Your task to perform on an android device: Add "panasonic triple a" to the cart on target, then select checkout. Image 0: 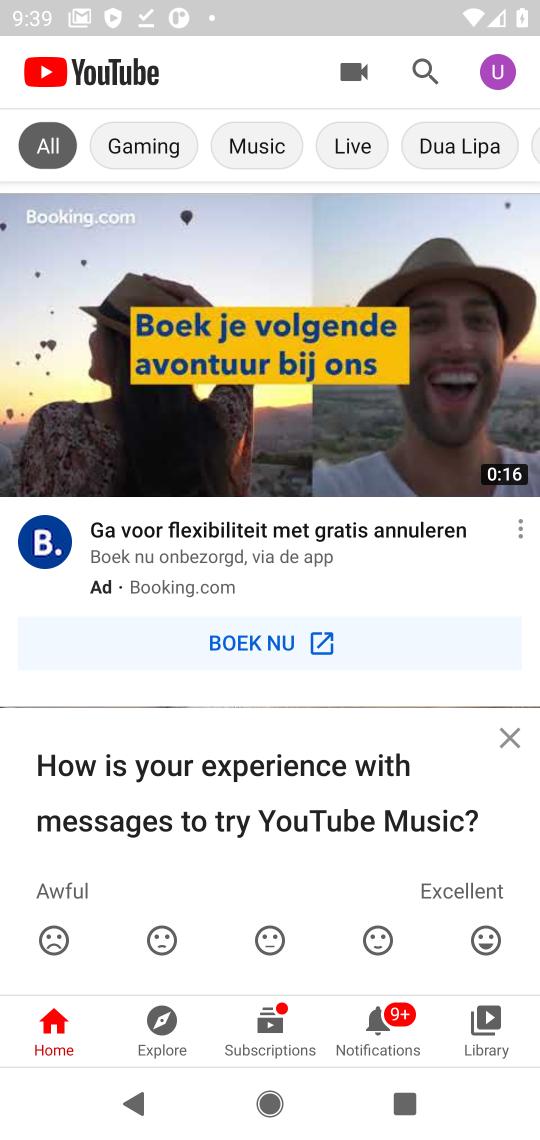
Step 0: press home button
Your task to perform on an android device: Add "panasonic triple a" to the cart on target, then select checkout. Image 1: 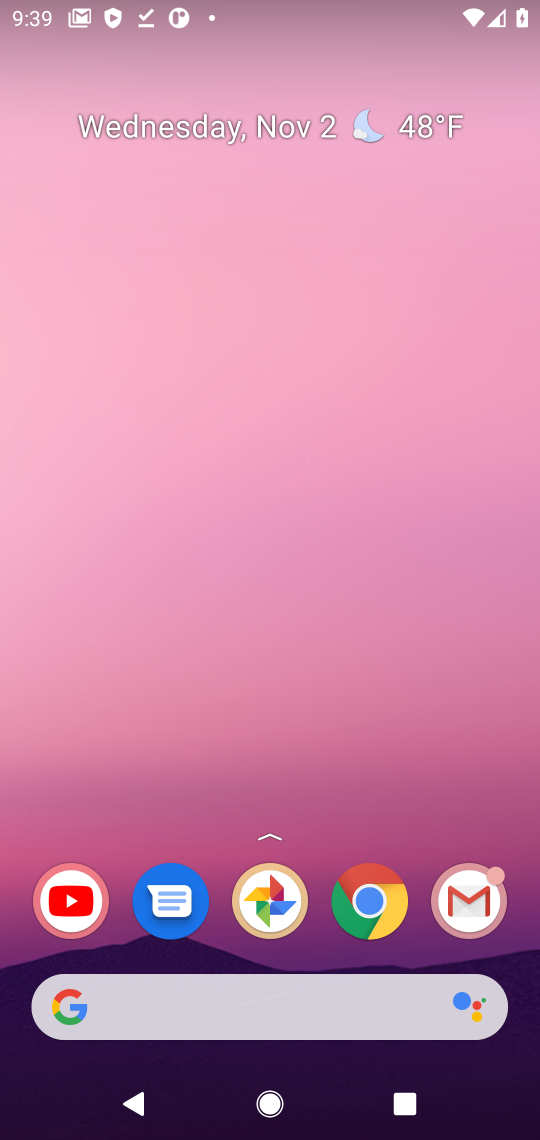
Step 1: click (370, 910)
Your task to perform on an android device: Add "panasonic triple a" to the cart on target, then select checkout. Image 2: 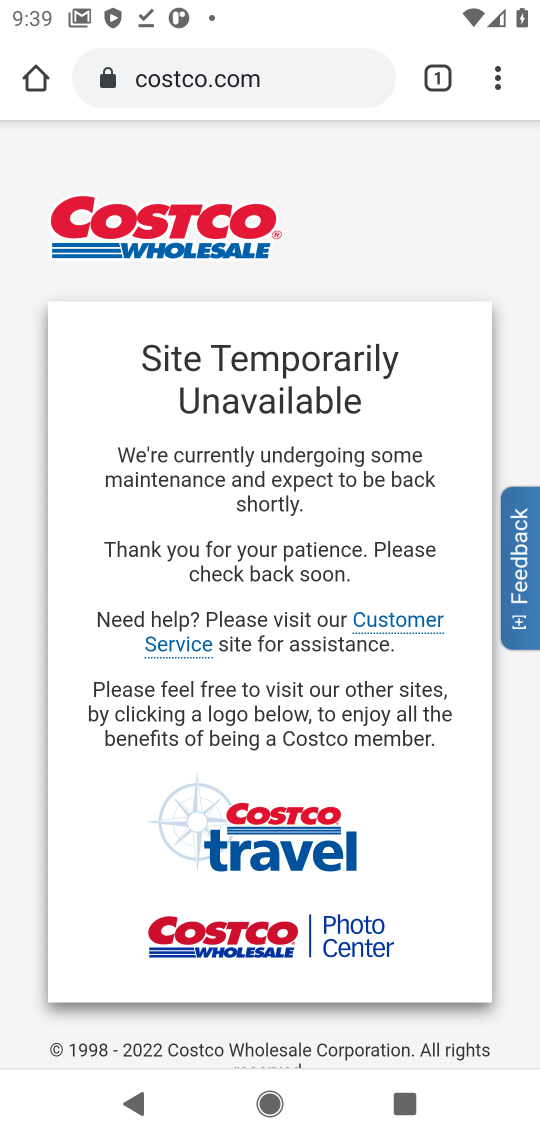
Step 2: click (291, 84)
Your task to perform on an android device: Add "panasonic triple a" to the cart on target, then select checkout. Image 3: 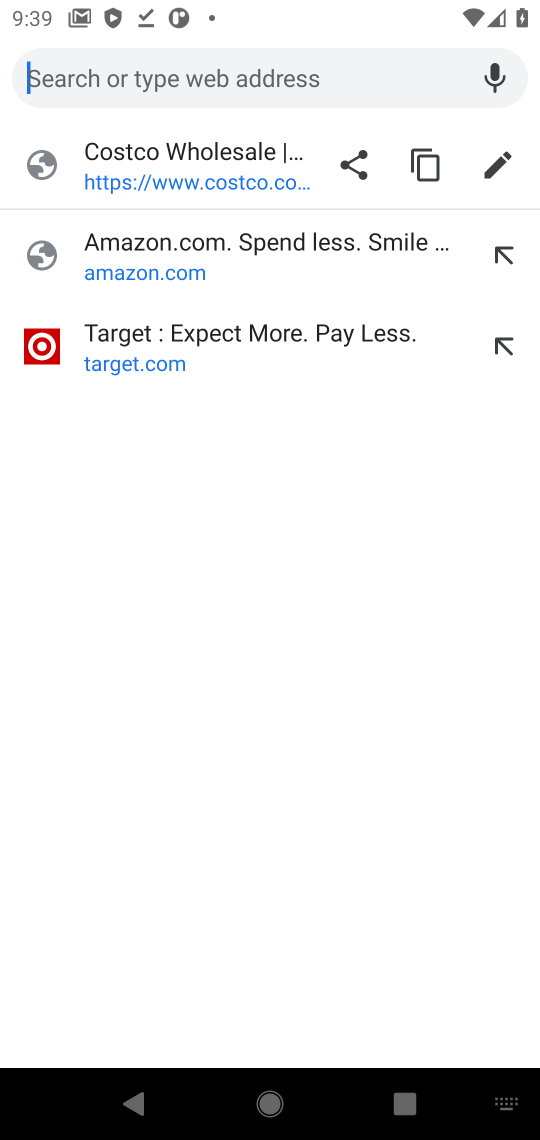
Step 3: type "target"
Your task to perform on an android device: Add "panasonic triple a" to the cart on target, then select checkout. Image 4: 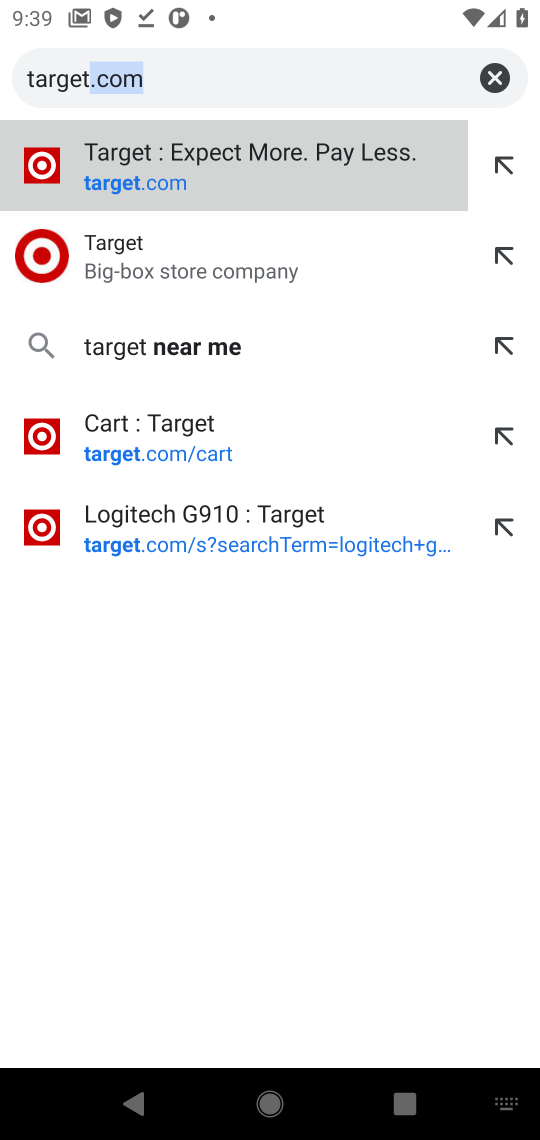
Step 4: click (293, 168)
Your task to perform on an android device: Add "panasonic triple a" to the cart on target, then select checkout. Image 5: 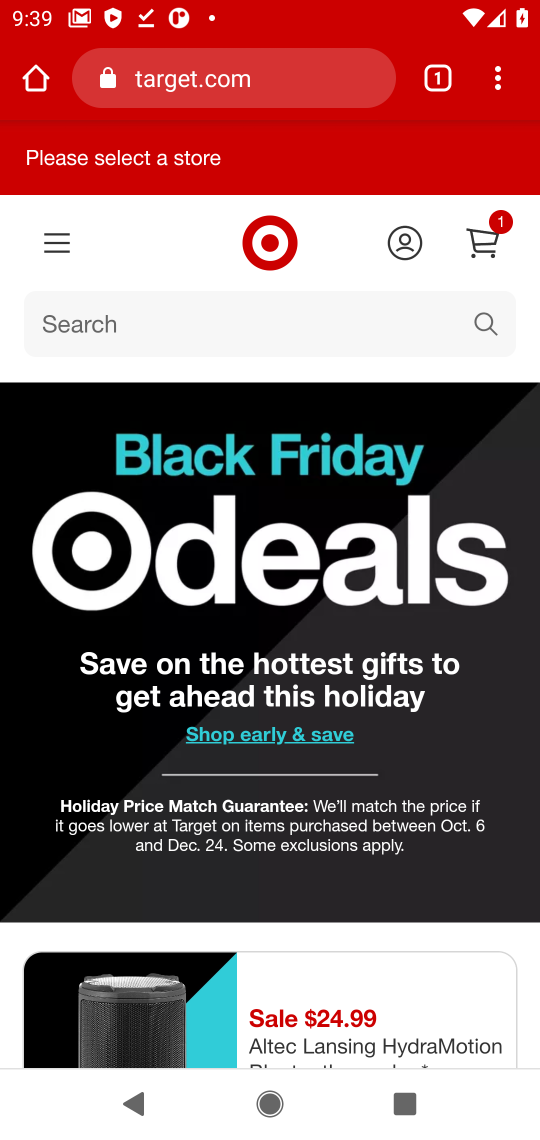
Step 5: click (198, 332)
Your task to perform on an android device: Add "panasonic triple a" to the cart on target, then select checkout. Image 6: 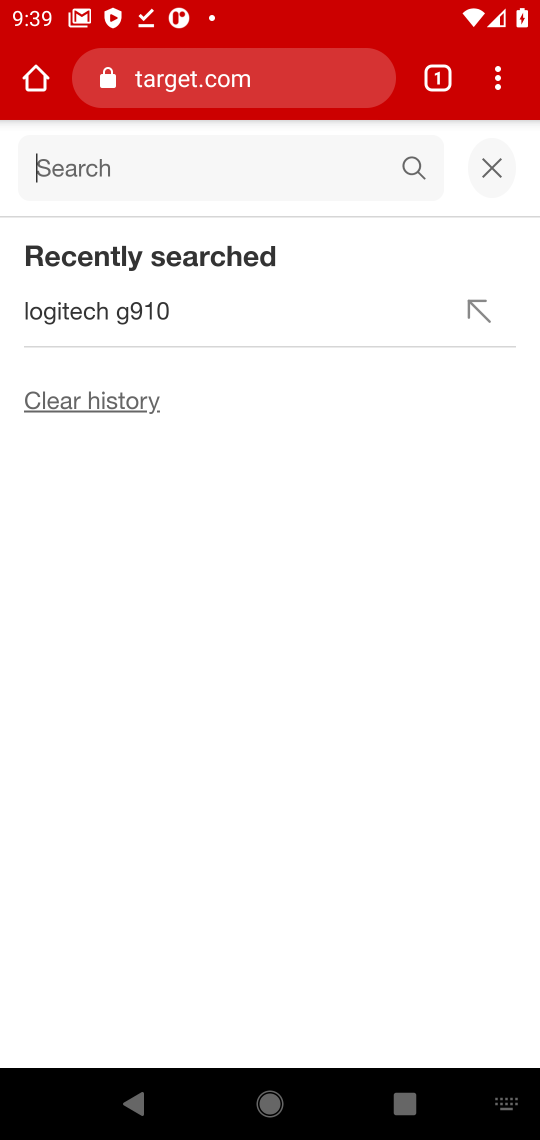
Step 6: type "panasonic triple a"
Your task to perform on an android device: Add "panasonic triple a" to the cart on target, then select checkout. Image 7: 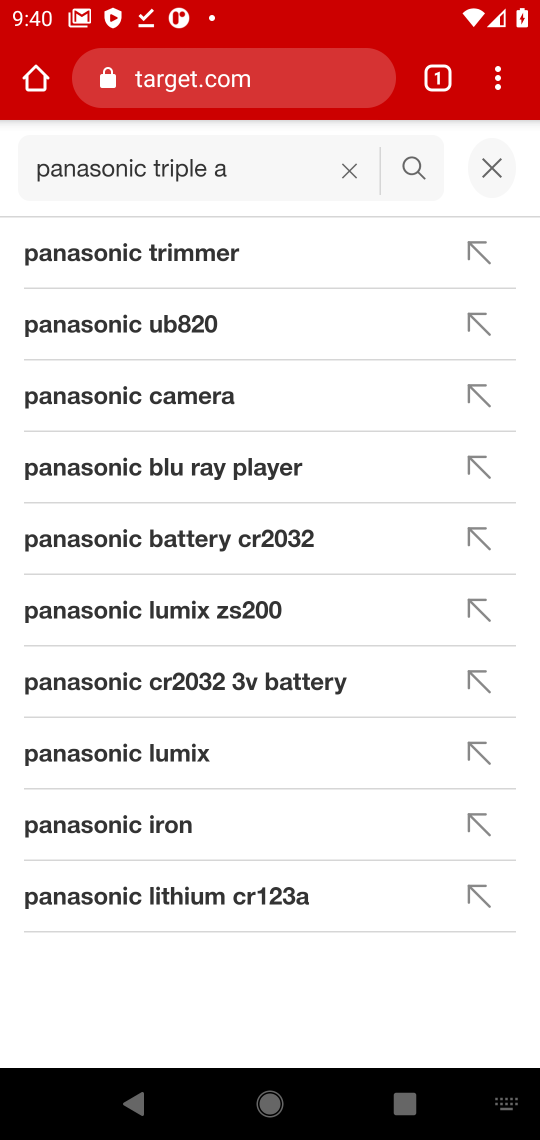
Step 7: click (416, 168)
Your task to perform on an android device: Add "panasonic triple a" to the cart on target, then select checkout. Image 8: 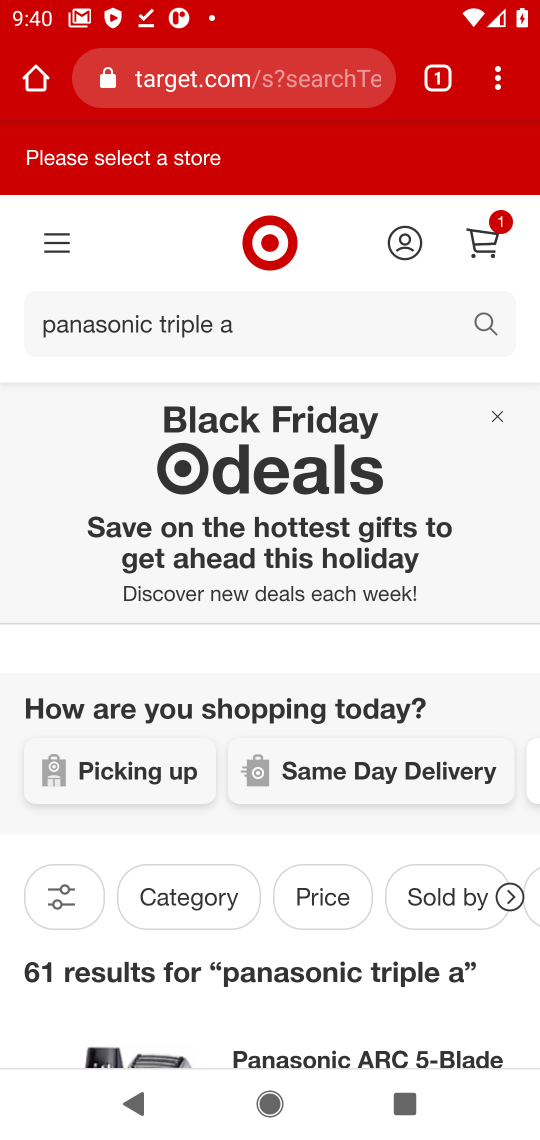
Step 8: drag from (162, 651) to (178, 293)
Your task to perform on an android device: Add "panasonic triple a" to the cart on target, then select checkout. Image 9: 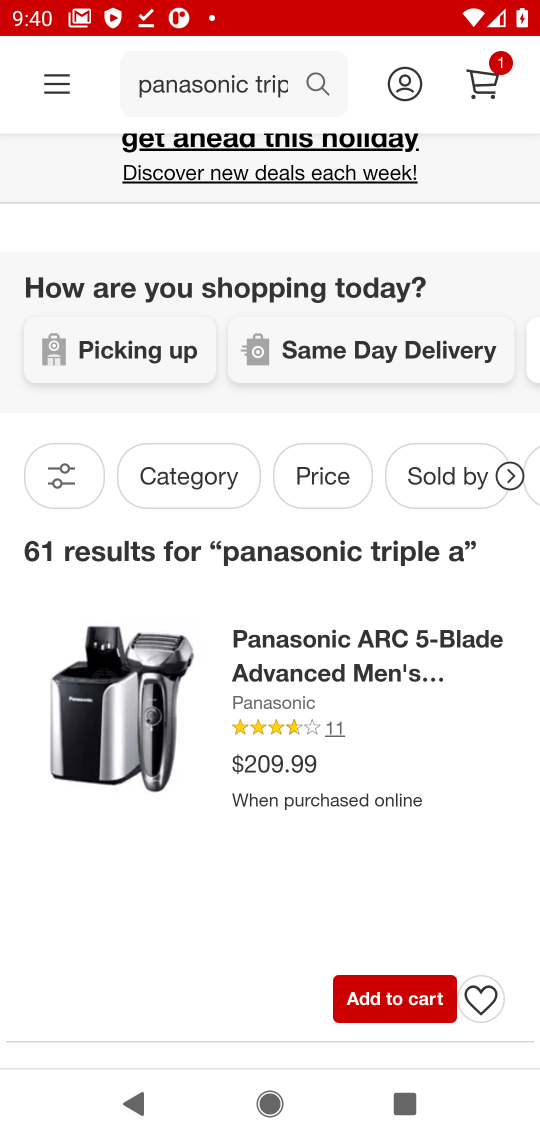
Step 9: drag from (258, 897) to (246, 434)
Your task to perform on an android device: Add "panasonic triple a" to the cart on target, then select checkout. Image 10: 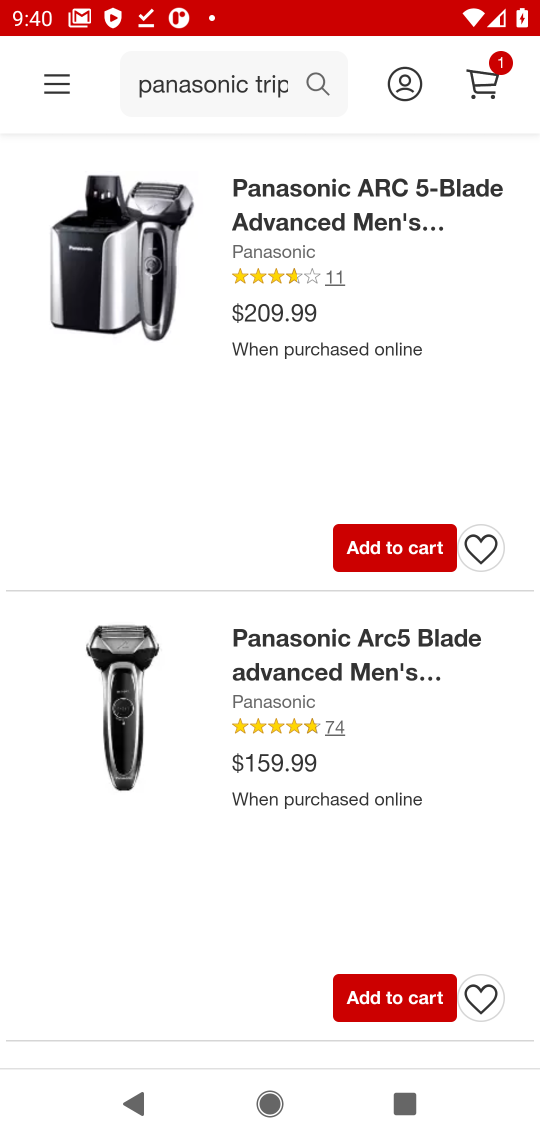
Step 10: drag from (241, 930) to (214, 260)
Your task to perform on an android device: Add "panasonic triple a" to the cart on target, then select checkout. Image 11: 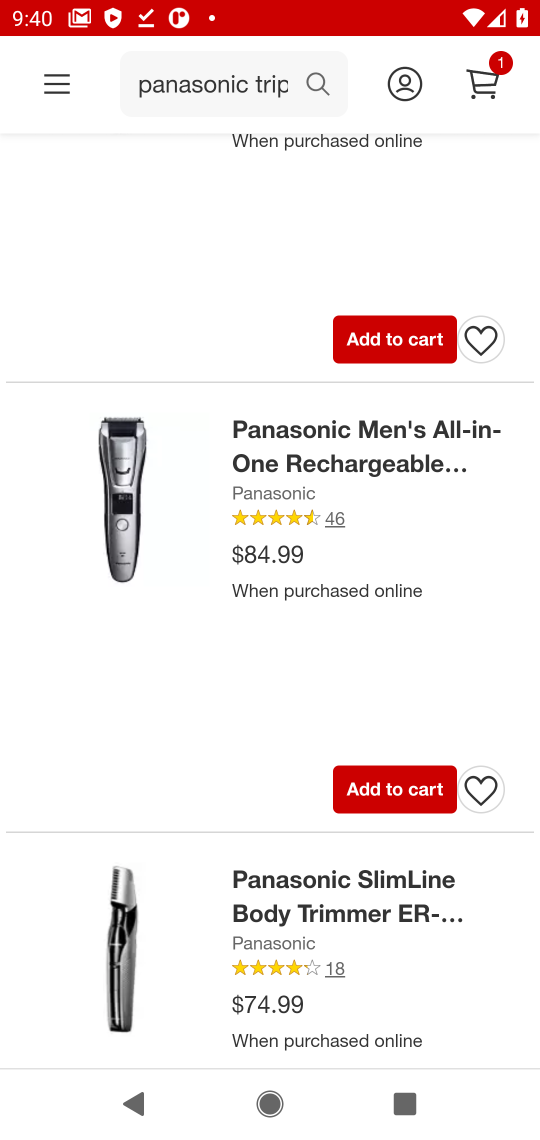
Step 11: drag from (177, 240) to (270, 1106)
Your task to perform on an android device: Add "panasonic triple a" to the cart on target, then select checkout. Image 12: 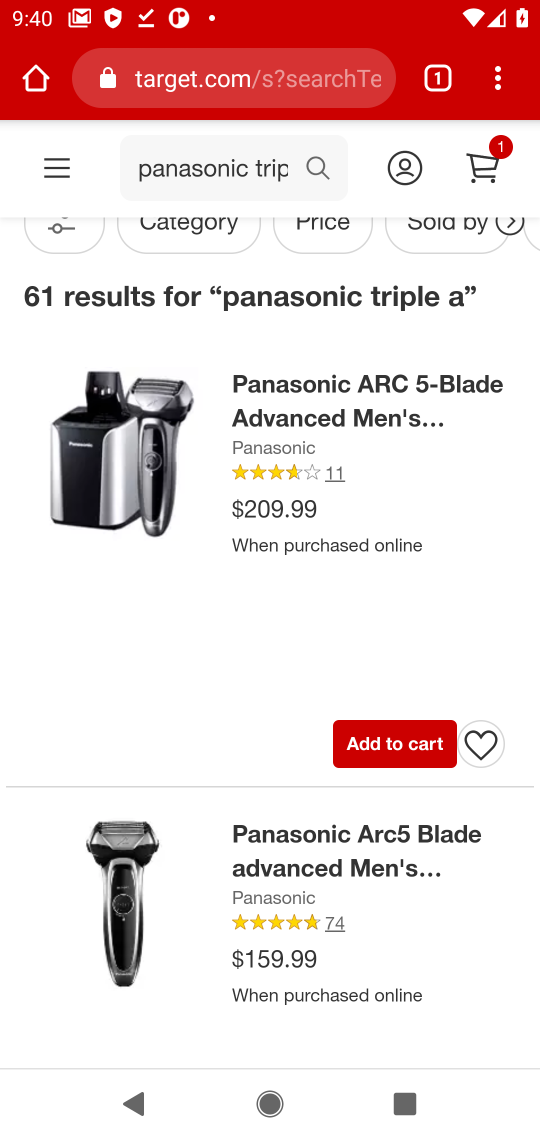
Step 12: click (297, 406)
Your task to perform on an android device: Add "panasonic triple a" to the cart on target, then select checkout. Image 13: 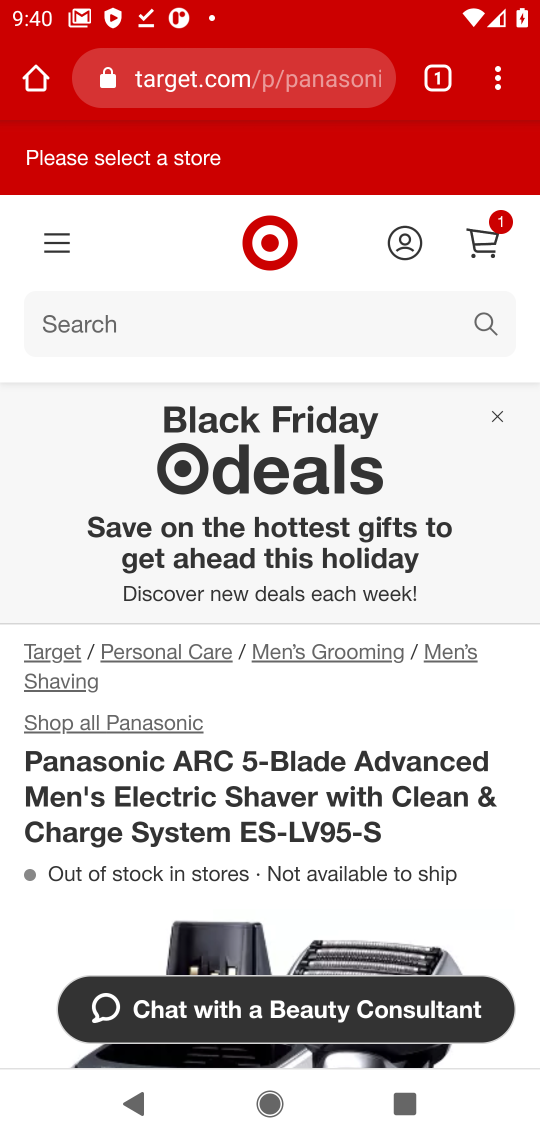
Step 13: drag from (384, 814) to (381, 433)
Your task to perform on an android device: Add "panasonic triple a" to the cart on target, then select checkout. Image 14: 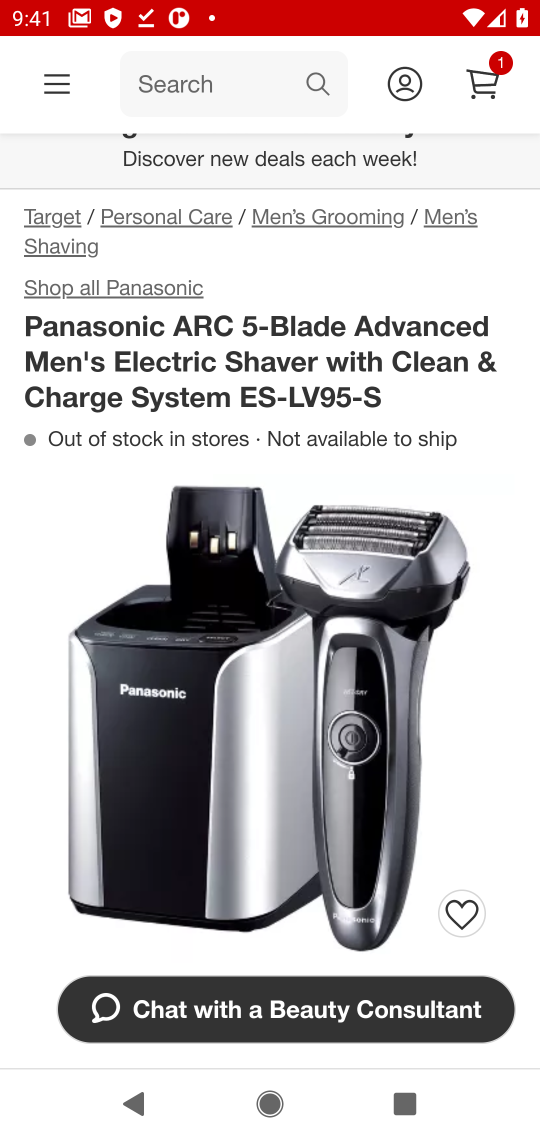
Step 14: drag from (459, 931) to (397, 135)
Your task to perform on an android device: Add "panasonic triple a" to the cart on target, then select checkout. Image 15: 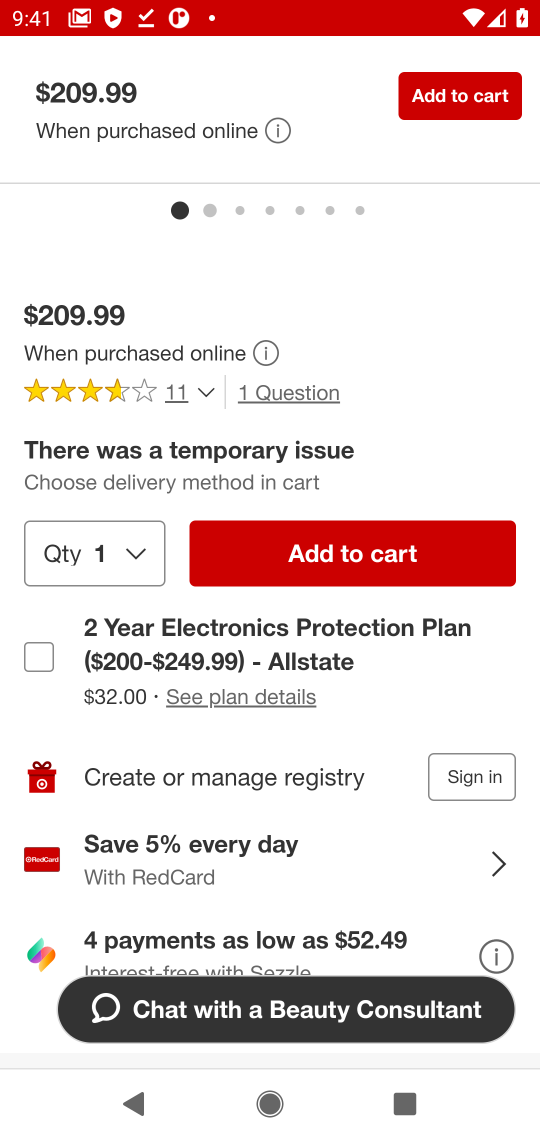
Step 15: click (360, 557)
Your task to perform on an android device: Add "panasonic triple a" to the cart on target, then select checkout. Image 16: 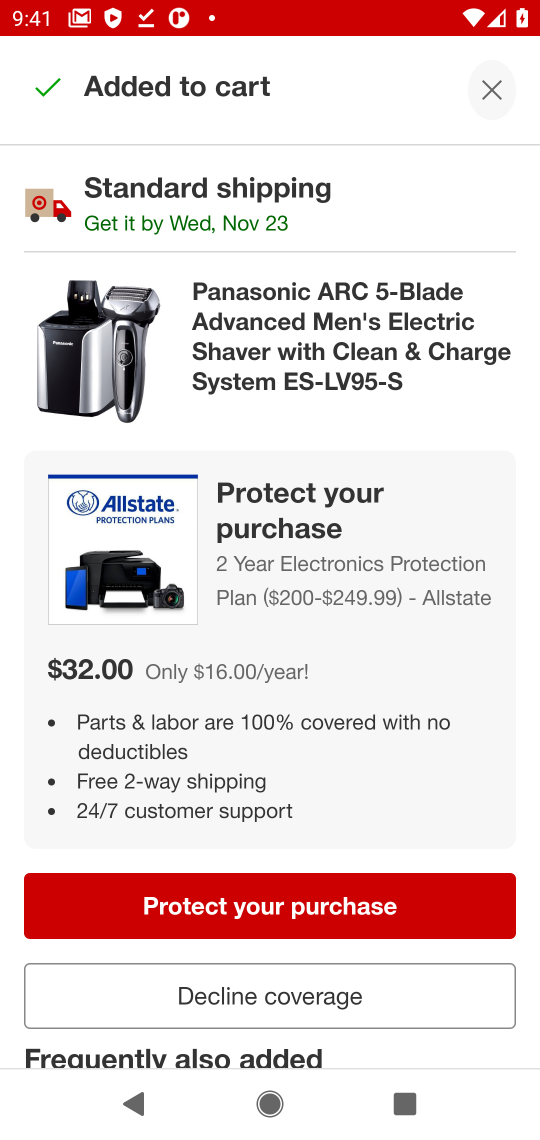
Step 16: task complete